Your task to perform on an android device: What's the weather going to be tomorrow? Image 0: 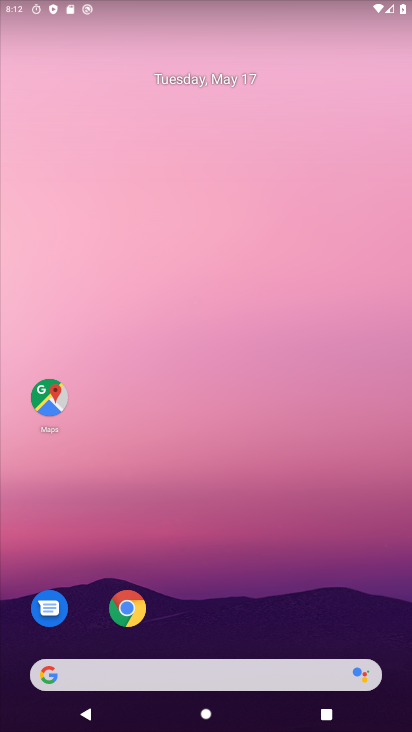
Step 0: drag from (352, 579) to (312, 109)
Your task to perform on an android device: What's the weather going to be tomorrow? Image 1: 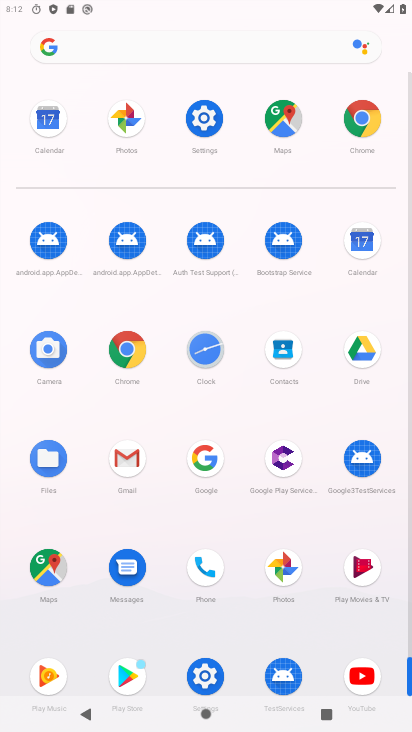
Step 1: click (126, 352)
Your task to perform on an android device: What's the weather going to be tomorrow? Image 2: 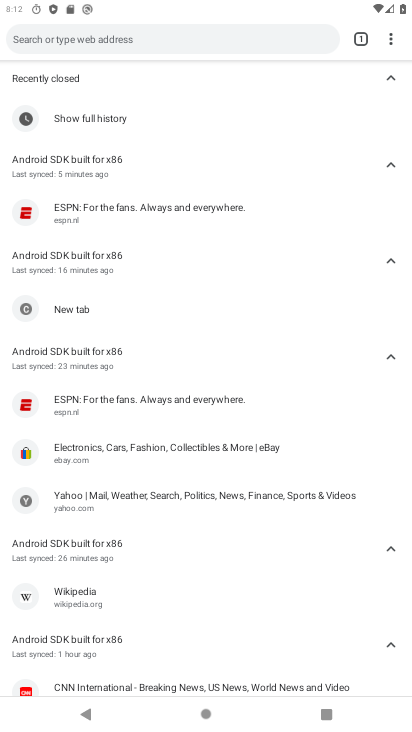
Step 2: click (123, 46)
Your task to perform on an android device: What's the weather going to be tomorrow? Image 3: 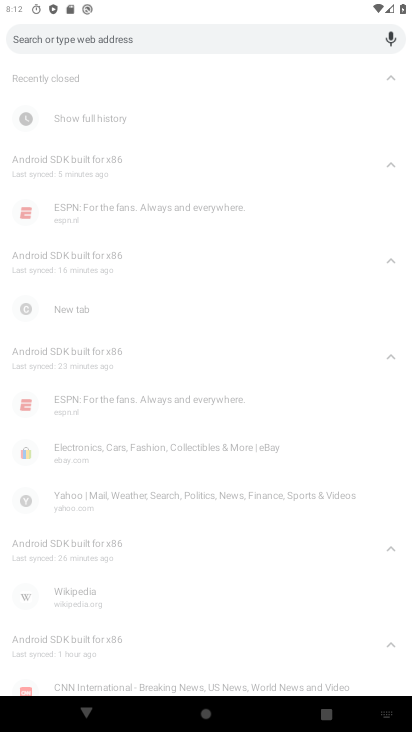
Step 3: type "what's the weather going to be tomorrow"
Your task to perform on an android device: What's the weather going to be tomorrow? Image 4: 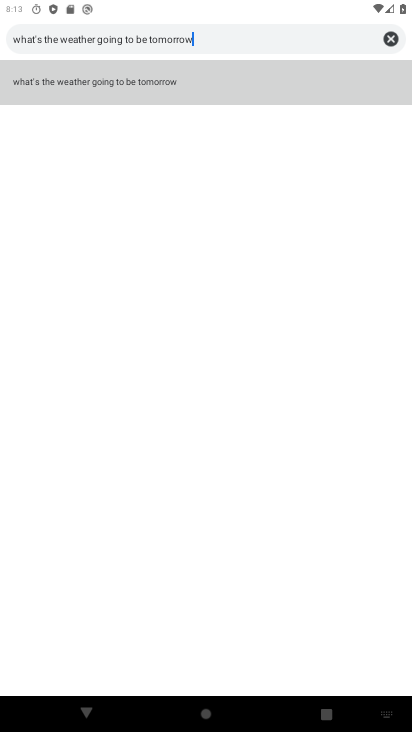
Step 4: click (69, 89)
Your task to perform on an android device: What's the weather going to be tomorrow? Image 5: 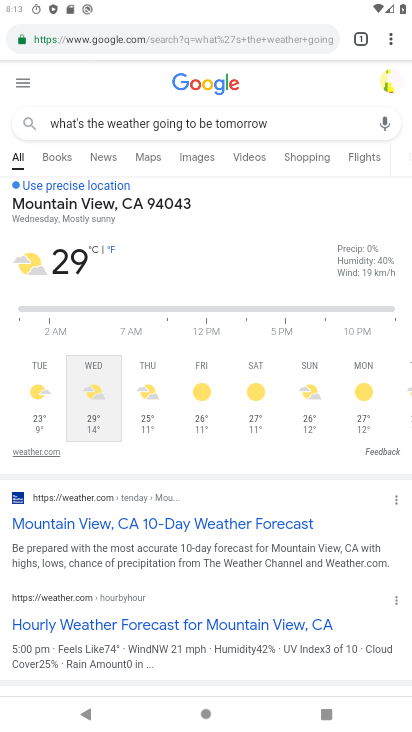
Step 5: task complete